Your task to perform on an android device: toggle airplane mode Image 0: 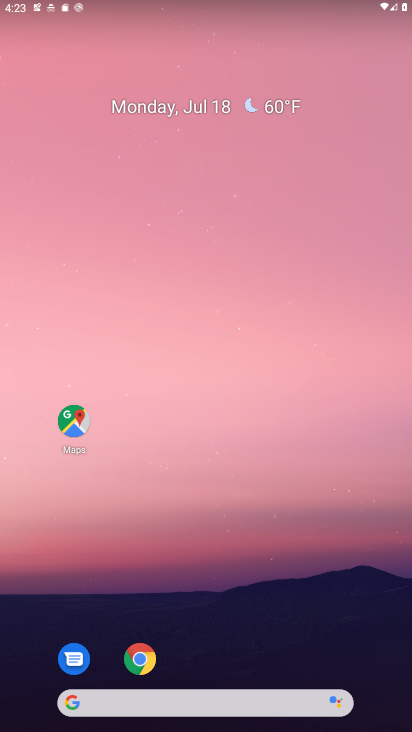
Step 0: drag from (215, 660) to (272, 5)
Your task to perform on an android device: toggle airplane mode Image 1: 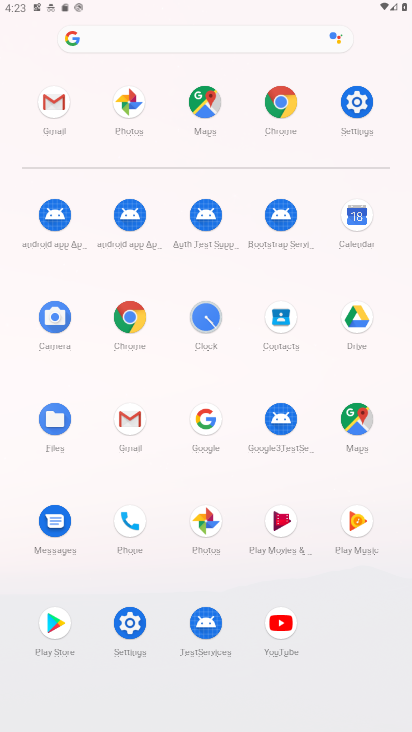
Step 1: click (363, 97)
Your task to perform on an android device: toggle airplane mode Image 2: 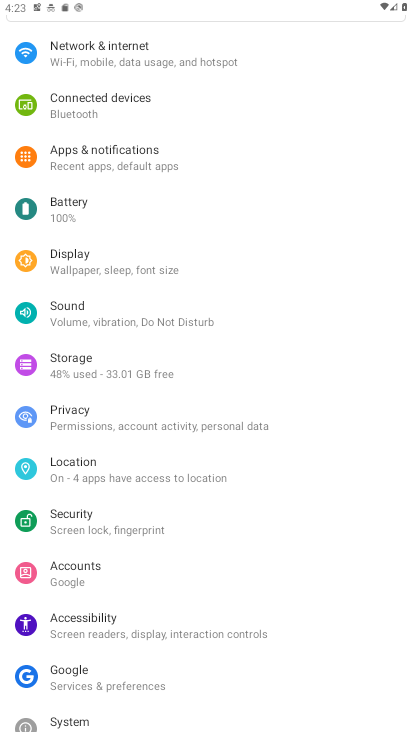
Step 2: click (157, 63)
Your task to perform on an android device: toggle airplane mode Image 3: 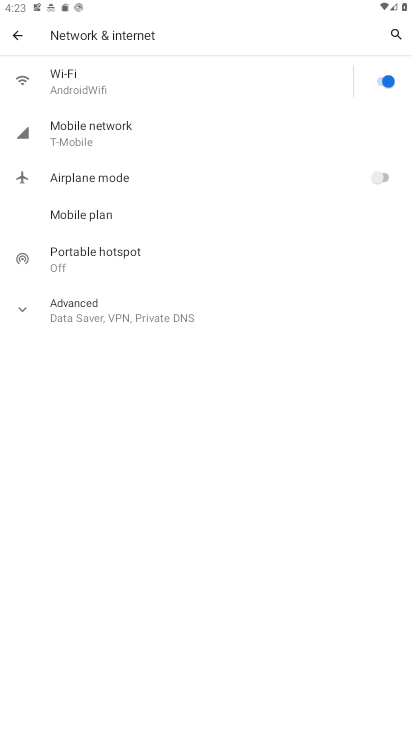
Step 3: click (379, 173)
Your task to perform on an android device: toggle airplane mode Image 4: 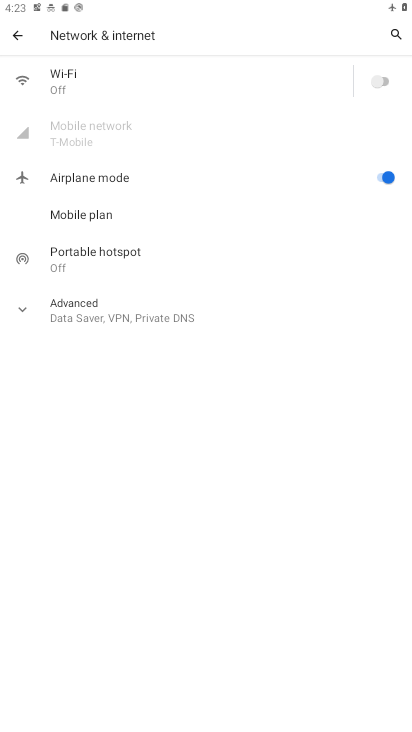
Step 4: task complete